Your task to perform on an android device: turn off picture-in-picture Image 0: 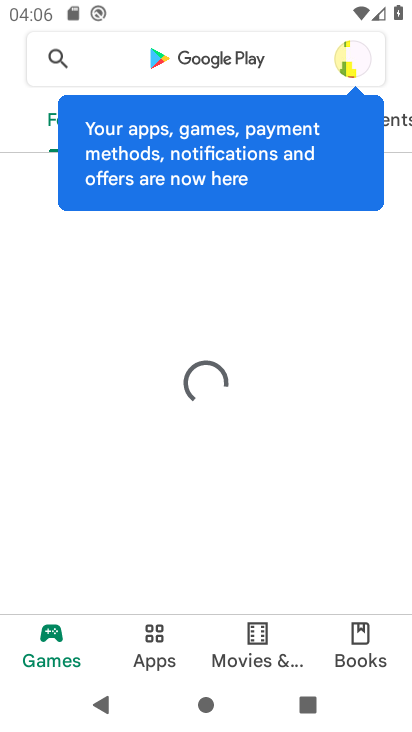
Step 0: press home button
Your task to perform on an android device: turn off picture-in-picture Image 1: 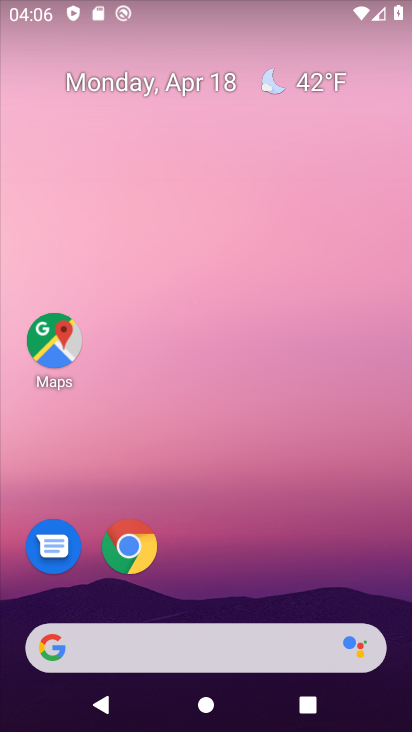
Step 1: drag from (262, 444) to (283, 114)
Your task to perform on an android device: turn off picture-in-picture Image 2: 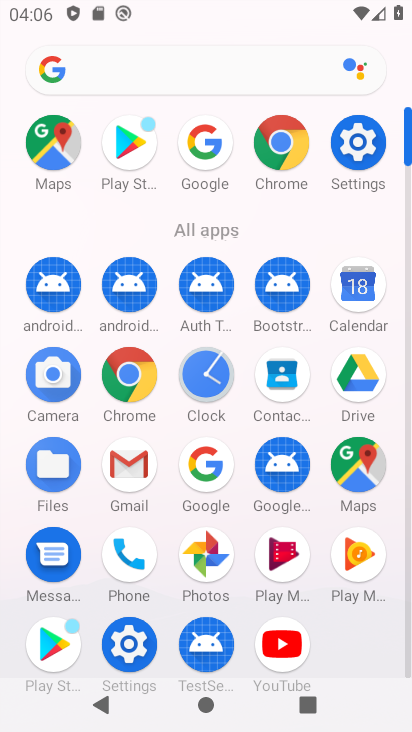
Step 2: click (351, 138)
Your task to perform on an android device: turn off picture-in-picture Image 3: 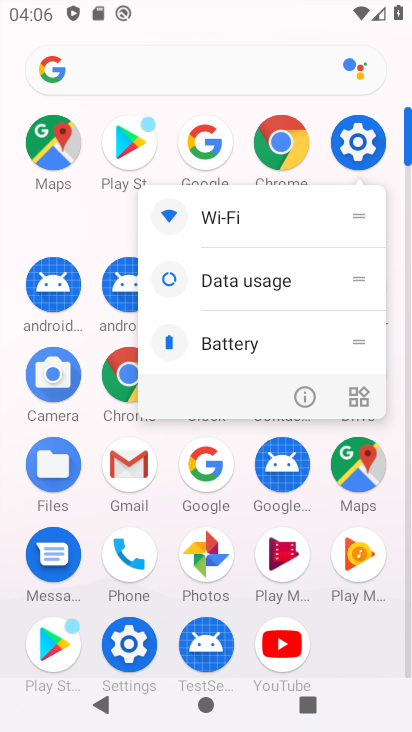
Step 3: click (345, 131)
Your task to perform on an android device: turn off picture-in-picture Image 4: 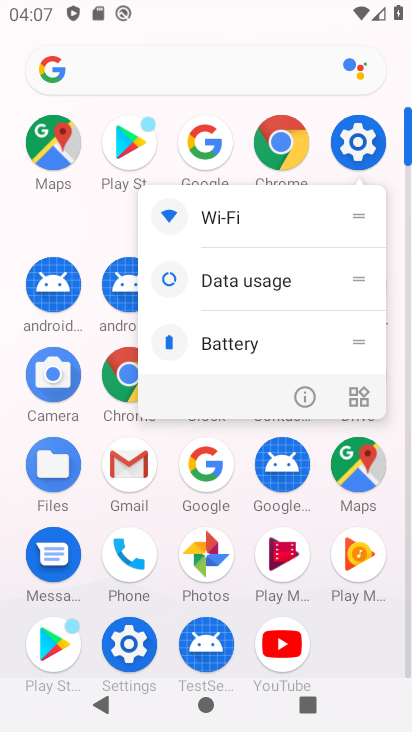
Step 4: click (355, 145)
Your task to perform on an android device: turn off picture-in-picture Image 5: 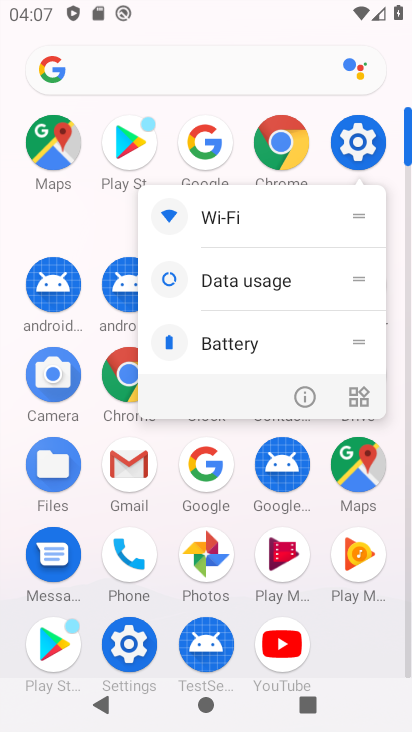
Step 5: click (355, 145)
Your task to perform on an android device: turn off picture-in-picture Image 6: 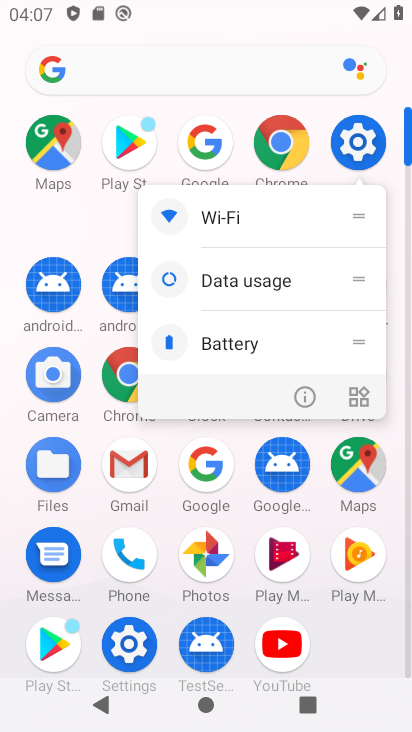
Step 6: click (355, 145)
Your task to perform on an android device: turn off picture-in-picture Image 7: 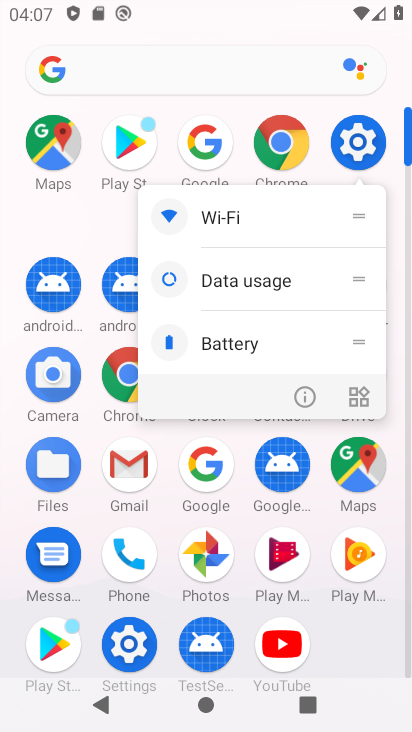
Step 7: click (363, 136)
Your task to perform on an android device: turn off picture-in-picture Image 8: 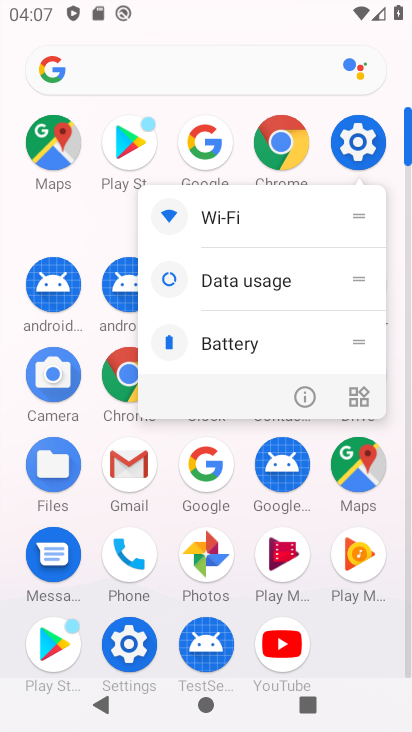
Step 8: click (363, 136)
Your task to perform on an android device: turn off picture-in-picture Image 9: 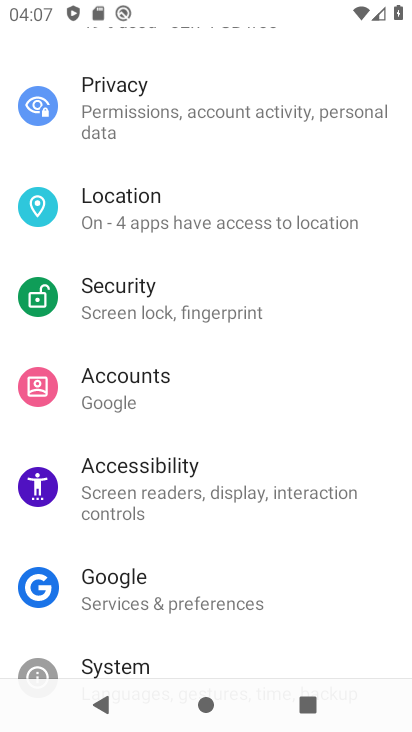
Step 9: drag from (213, 118) to (239, 581)
Your task to perform on an android device: turn off picture-in-picture Image 10: 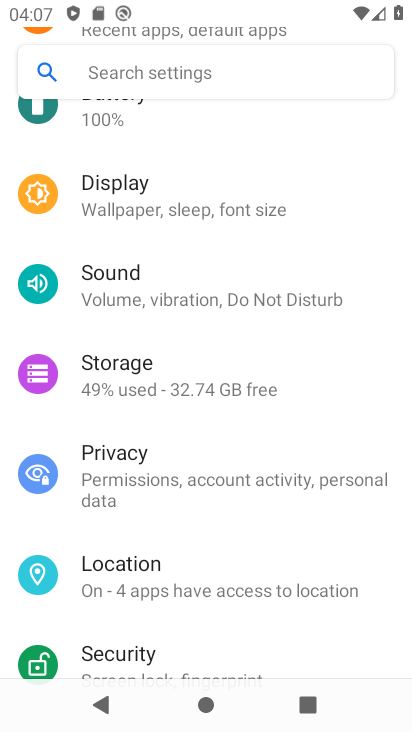
Step 10: drag from (239, 173) to (252, 610)
Your task to perform on an android device: turn off picture-in-picture Image 11: 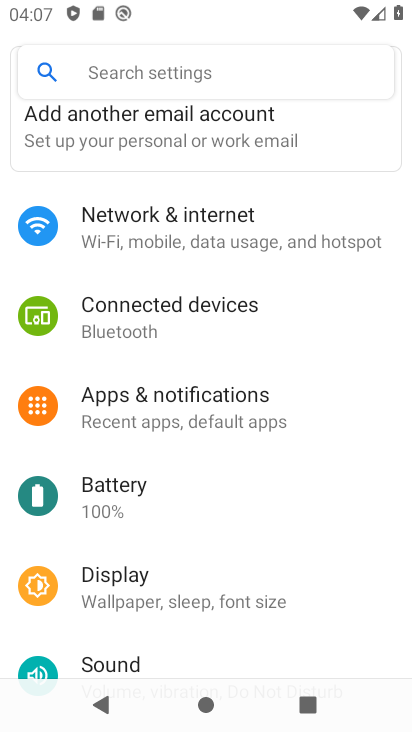
Step 11: click (188, 404)
Your task to perform on an android device: turn off picture-in-picture Image 12: 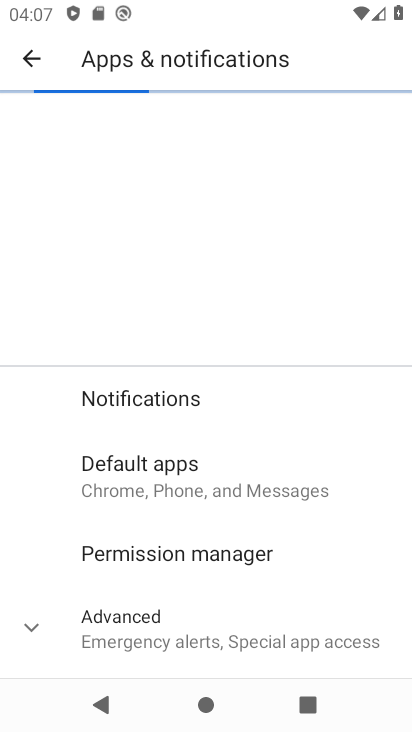
Step 12: click (231, 642)
Your task to perform on an android device: turn off picture-in-picture Image 13: 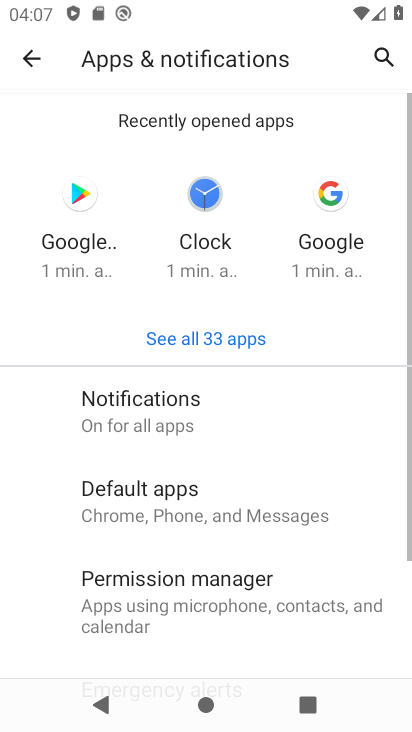
Step 13: drag from (280, 629) to (236, 158)
Your task to perform on an android device: turn off picture-in-picture Image 14: 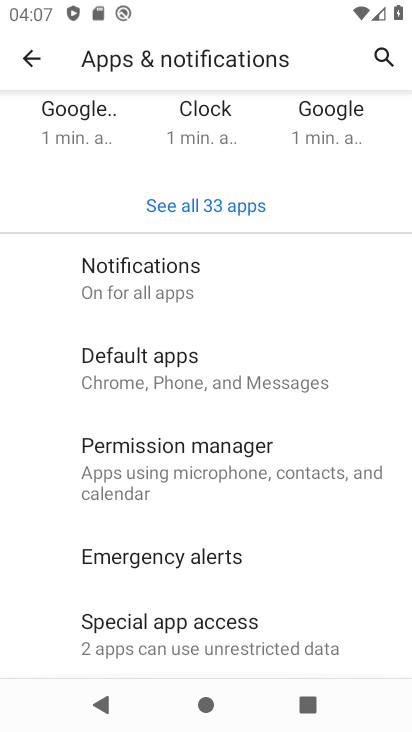
Step 14: click (190, 633)
Your task to perform on an android device: turn off picture-in-picture Image 15: 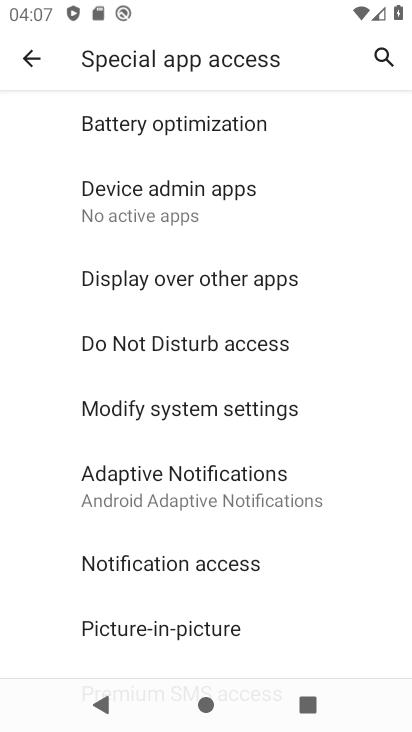
Step 15: click (191, 625)
Your task to perform on an android device: turn off picture-in-picture Image 16: 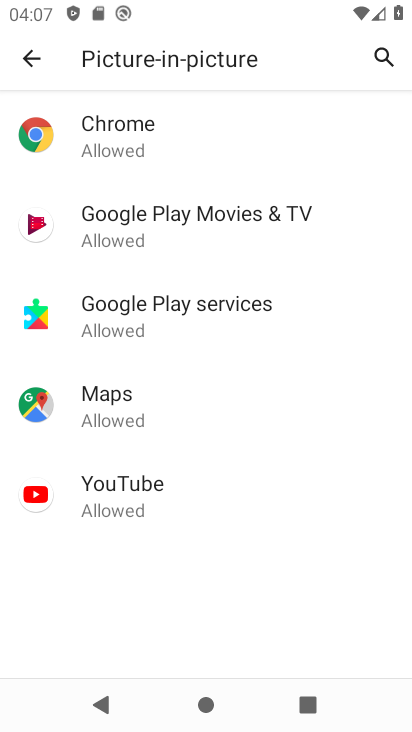
Step 16: click (191, 625)
Your task to perform on an android device: turn off picture-in-picture Image 17: 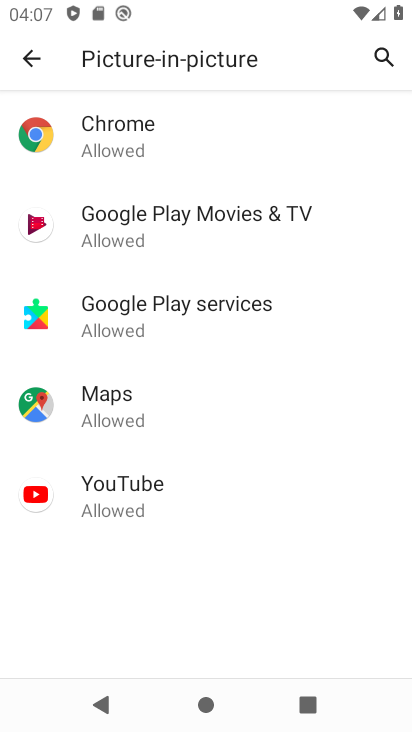
Step 17: click (157, 484)
Your task to perform on an android device: turn off picture-in-picture Image 18: 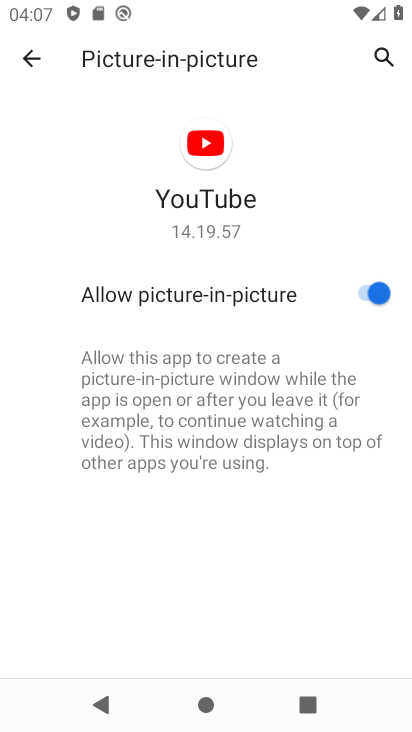
Step 18: click (372, 300)
Your task to perform on an android device: turn off picture-in-picture Image 19: 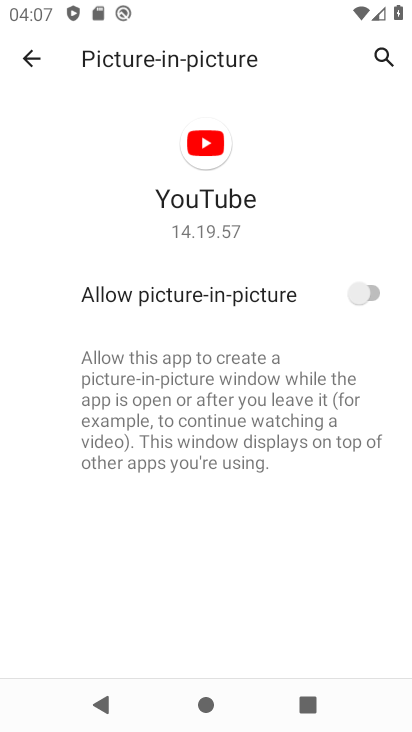
Step 19: task complete